Your task to perform on an android device: search for starred emails in the gmail app Image 0: 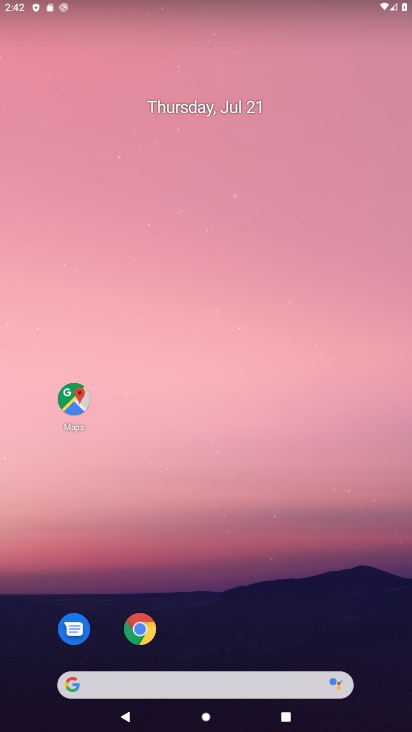
Step 0: drag from (373, 704) to (313, 74)
Your task to perform on an android device: search for starred emails in the gmail app Image 1: 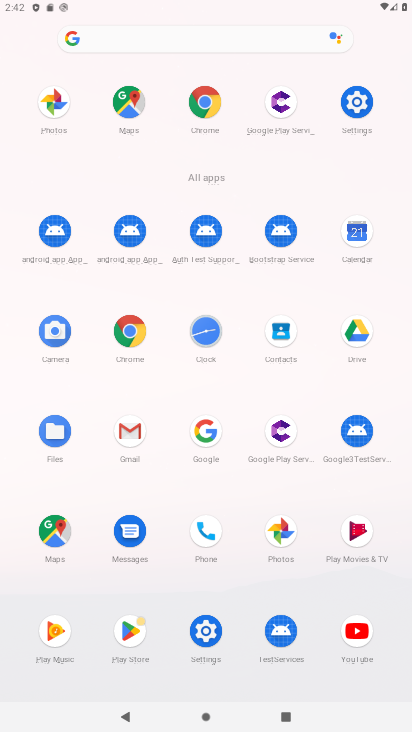
Step 1: click (140, 429)
Your task to perform on an android device: search for starred emails in the gmail app Image 2: 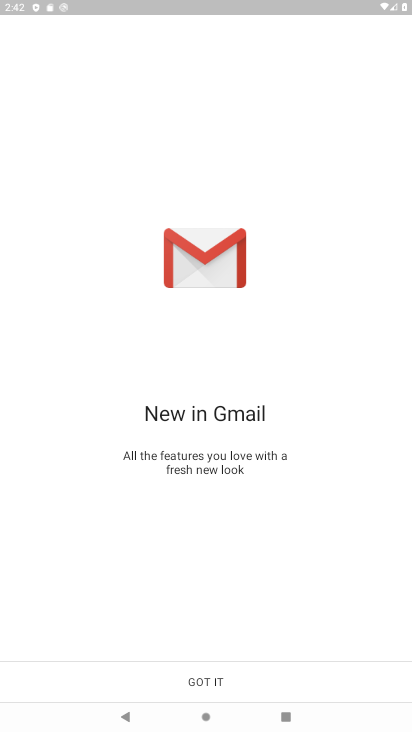
Step 2: click (207, 677)
Your task to perform on an android device: search for starred emails in the gmail app Image 3: 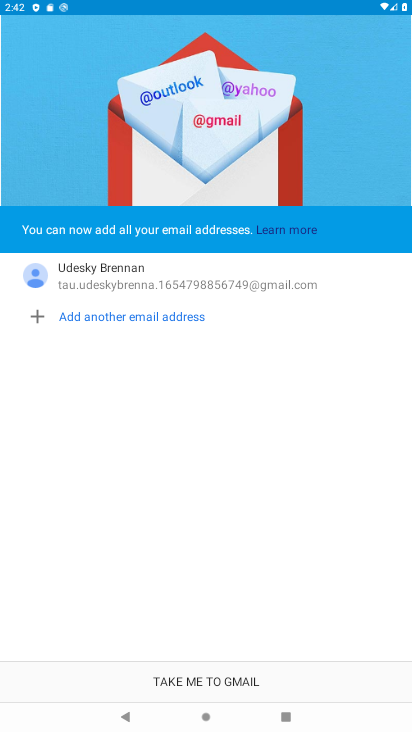
Step 3: click (206, 677)
Your task to perform on an android device: search for starred emails in the gmail app Image 4: 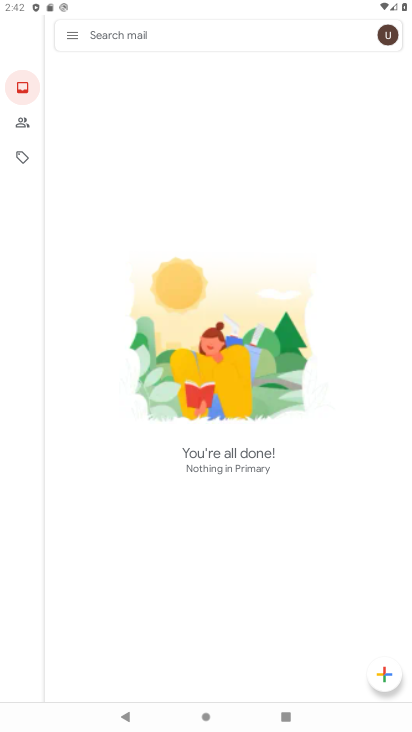
Step 4: click (62, 31)
Your task to perform on an android device: search for starred emails in the gmail app Image 5: 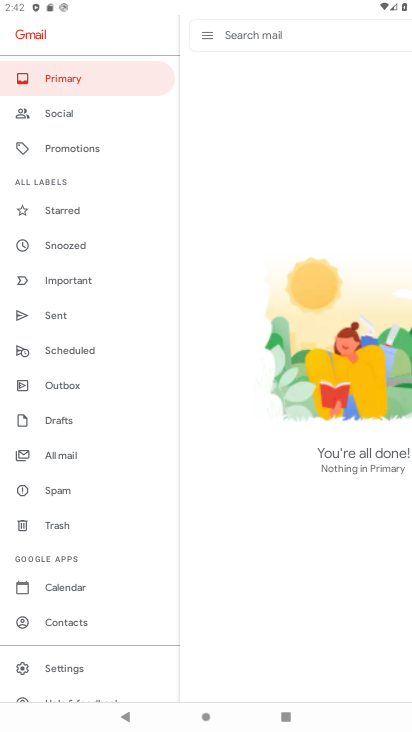
Step 5: click (66, 213)
Your task to perform on an android device: search for starred emails in the gmail app Image 6: 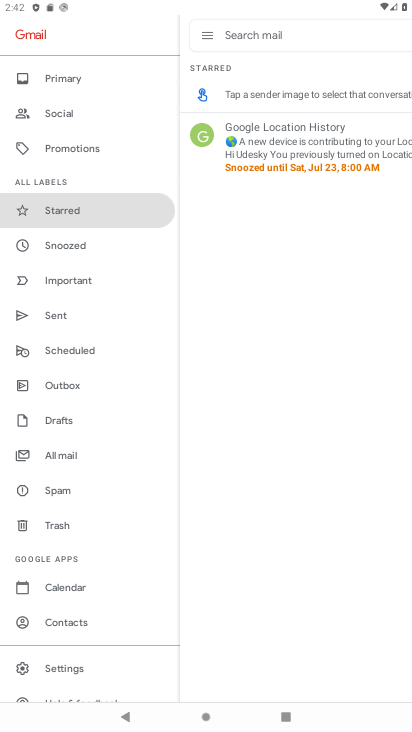
Step 6: task complete